Your task to perform on an android device: Search for flights from Buenos aires to Helsinki Image 0: 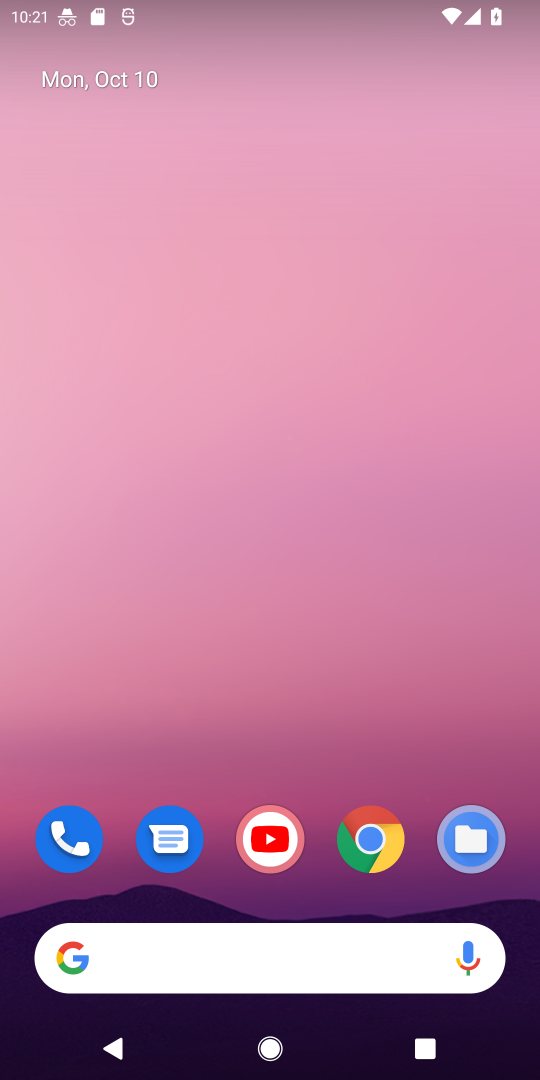
Step 0: drag from (313, 886) to (262, 173)
Your task to perform on an android device: Search for flights from Buenos aires to Helsinki Image 1: 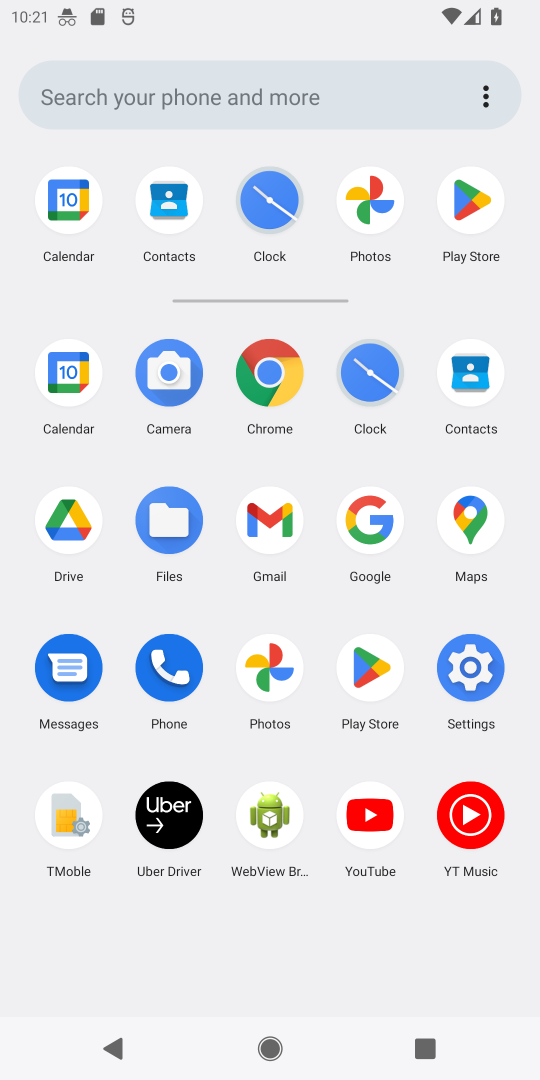
Step 1: click (276, 368)
Your task to perform on an android device: Search for flights from Buenos aires to Helsinki Image 2: 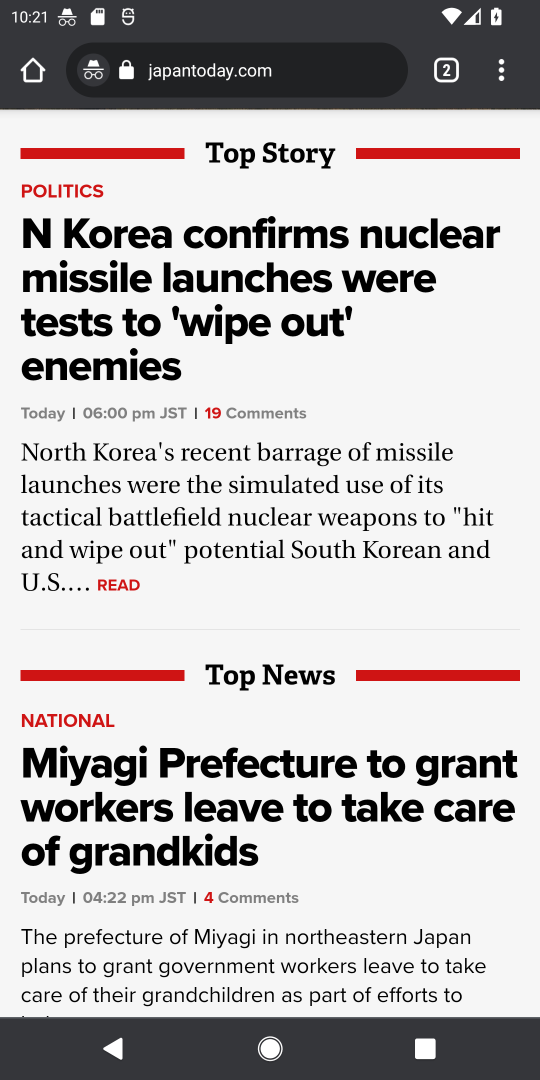
Step 2: click (331, 69)
Your task to perform on an android device: Search for flights from Buenos aires to Helsinki Image 3: 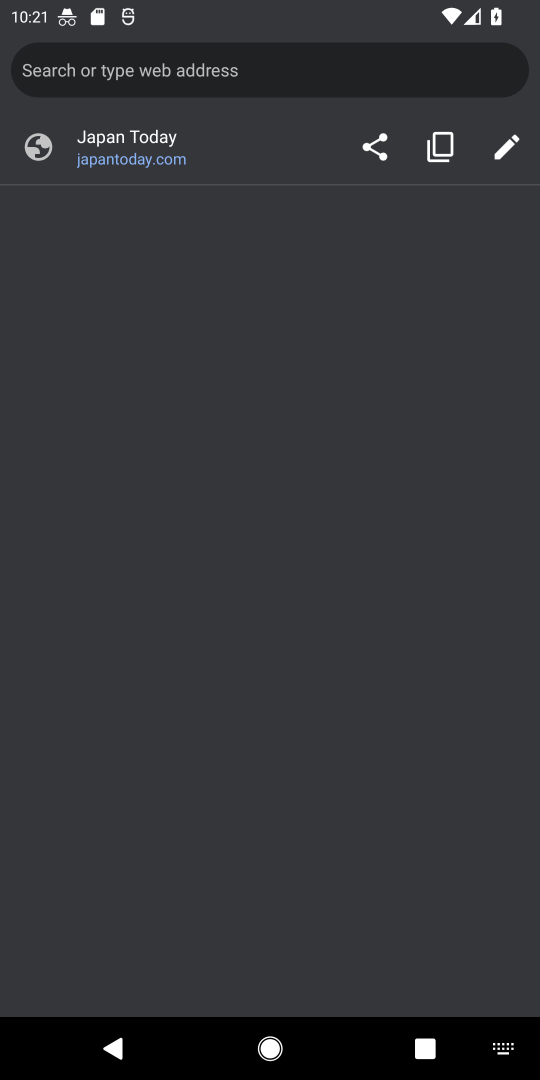
Step 3: type "flights from Buenos aires to Helsinki"
Your task to perform on an android device: Search for flights from Buenos aires to Helsinki Image 4: 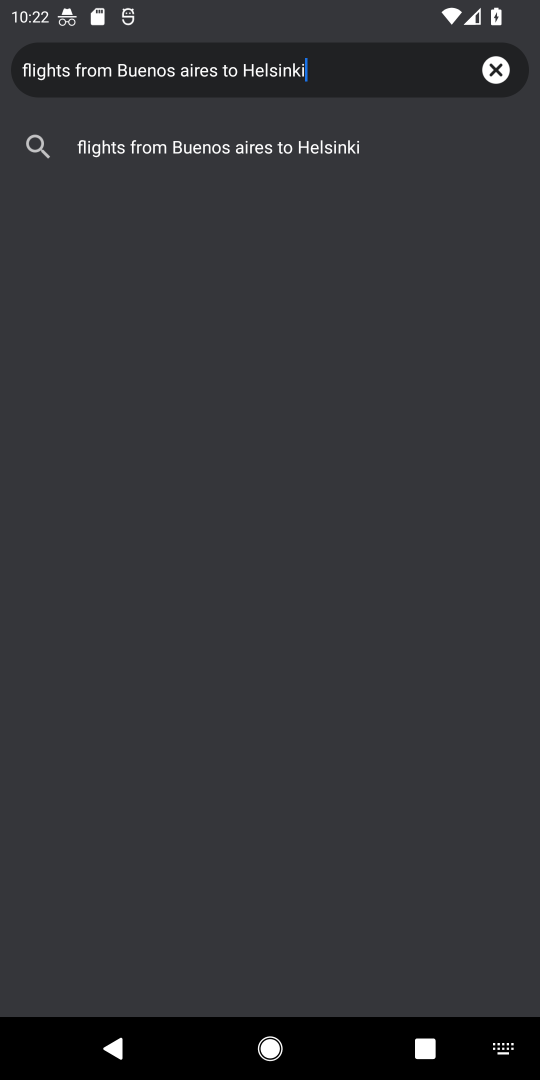
Step 4: drag from (434, 78) to (507, 174)
Your task to perform on an android device: Search for flights from Buenos aires to Helsinki Image 5: 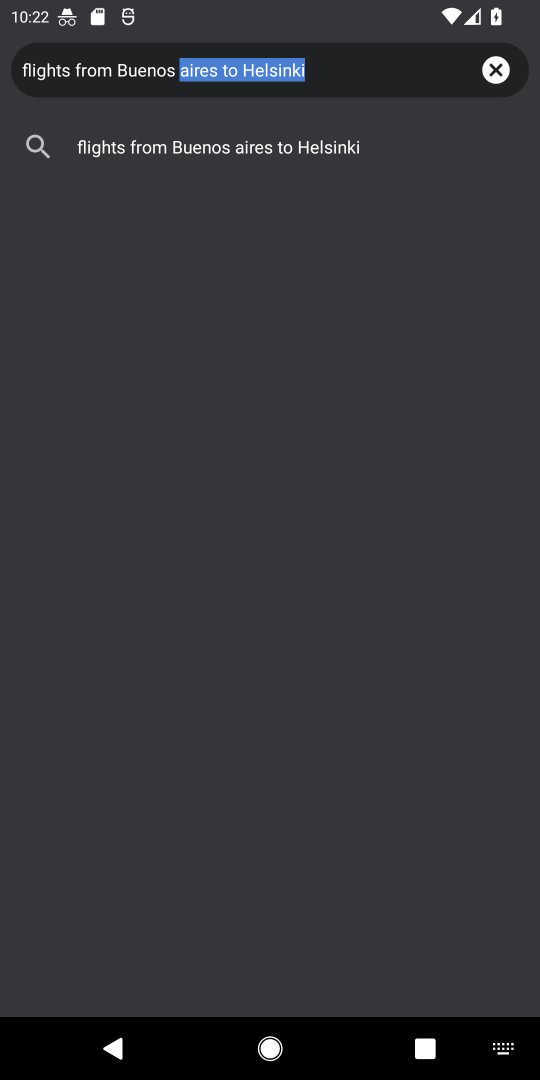
Step 5: press enter
Your task to perform on an android device: Search for flights from Buenos aires to Helsinki Image 6: 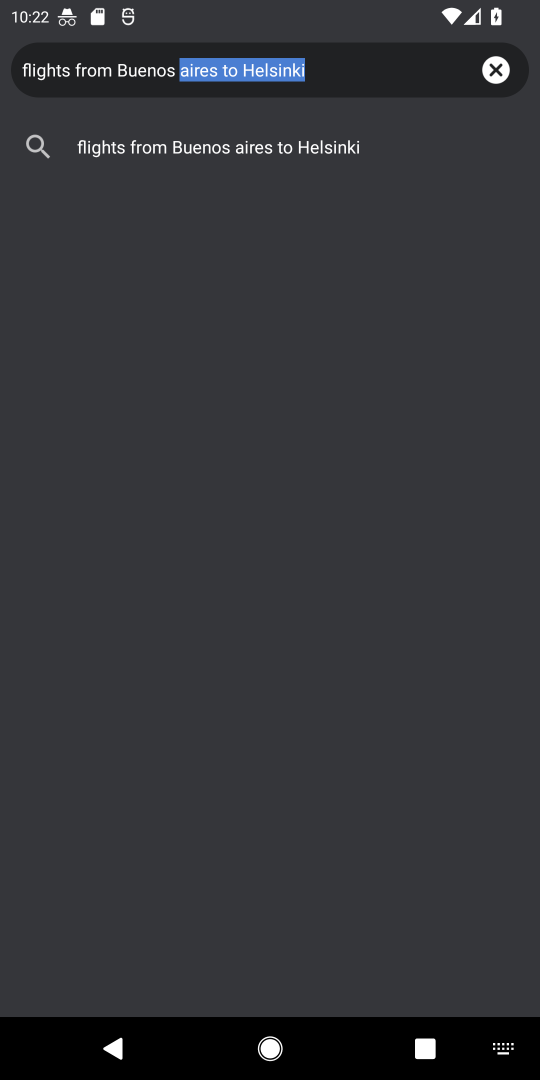
Step 6: task complete